Your task to perform on an android device: open app "ColorNote Notepad Notes" Image 0: 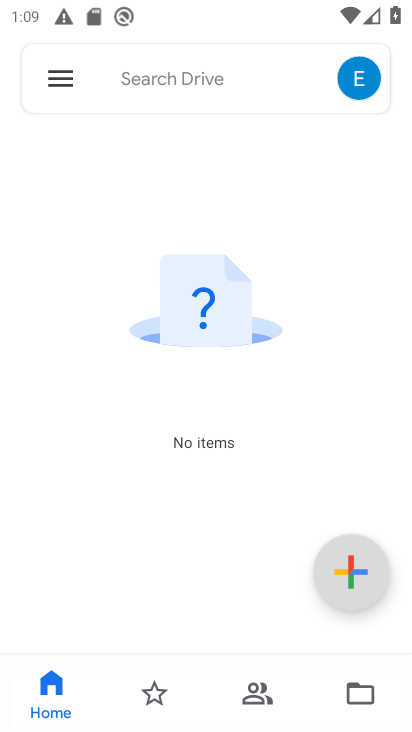
Step 0: press back button
Your task to perform on an android device: open app "ColorNote Notepad Notes" Image 1: 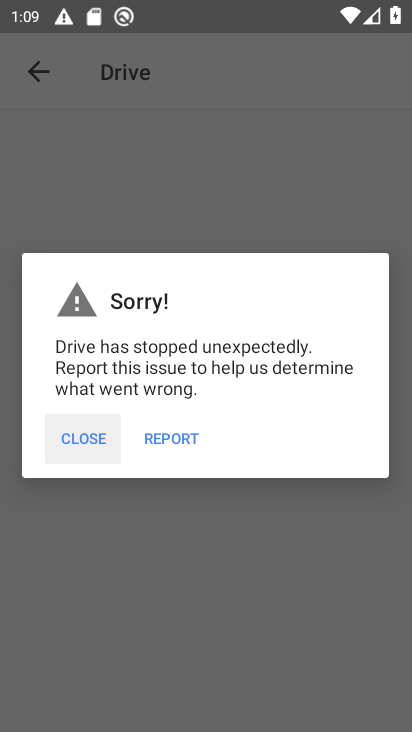
Step 1: press home button
Your task to perform on an android device: open app "ColorNote Notepad Notes" Image 2: 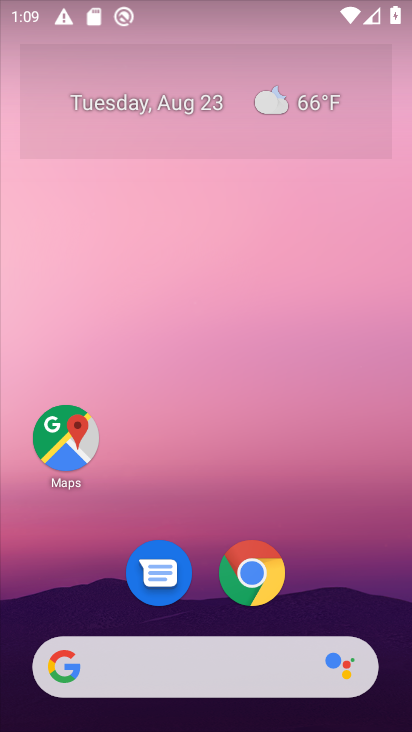
Step 2: drag from (222, 497) to (207, 73)
Your task to perform on an android device: open app "ColorNote Notepad Notes" Image 3: 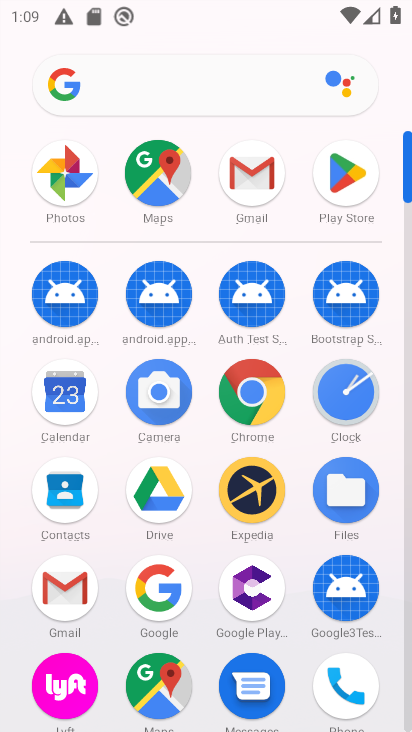
Step 3: click (355, 186)
Your task to perform on an android device: open app "ColorNote Notepad Notes" Image 4: 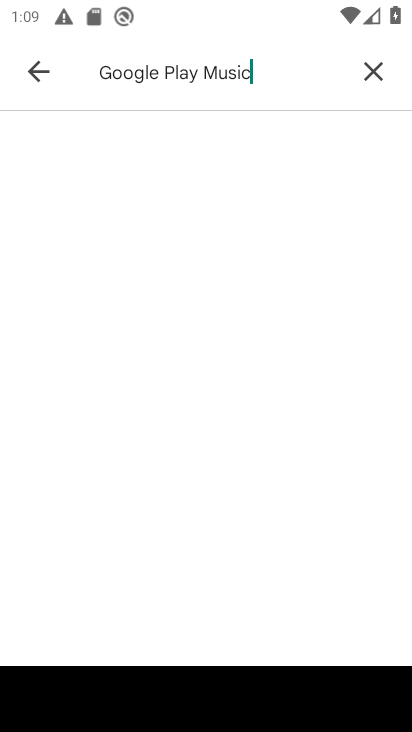
Step 4: click (380, 66)
Your task to perform on an android device: open app "ColorNote Notepad Notes" Image 5: 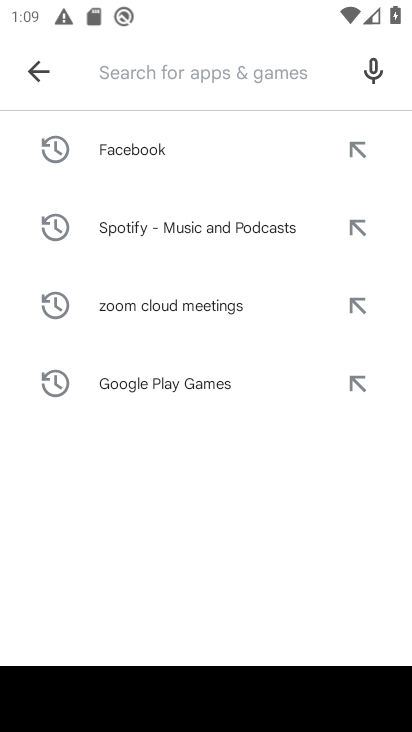
Step 5: type "ColorNote Notepad Notes"
Your task to perform on an android device: open app "ColorNote Notepad Notes" Image 6: 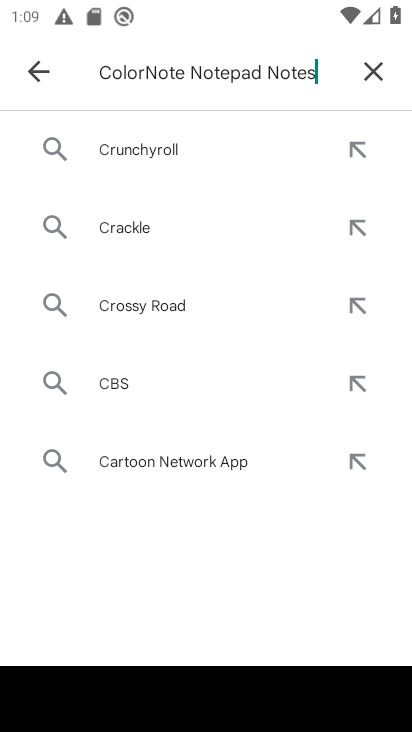
Step 6: type ""
Your task to perform on an android device: open app "ColorNote Notepad Notes" Image 7: 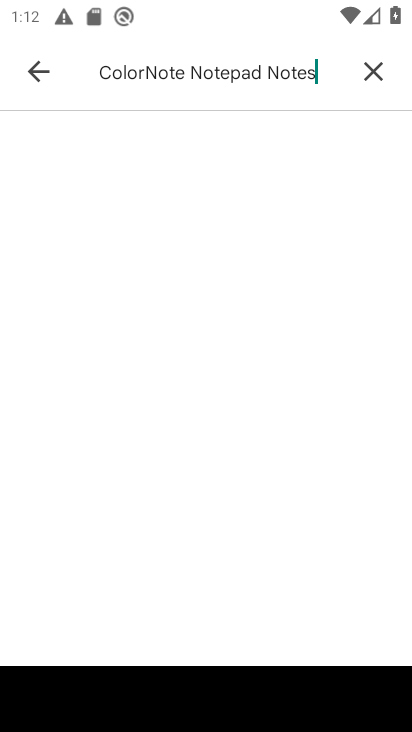
Step 7: task complete